Your task to perform on an android device: Open maps Image 0: 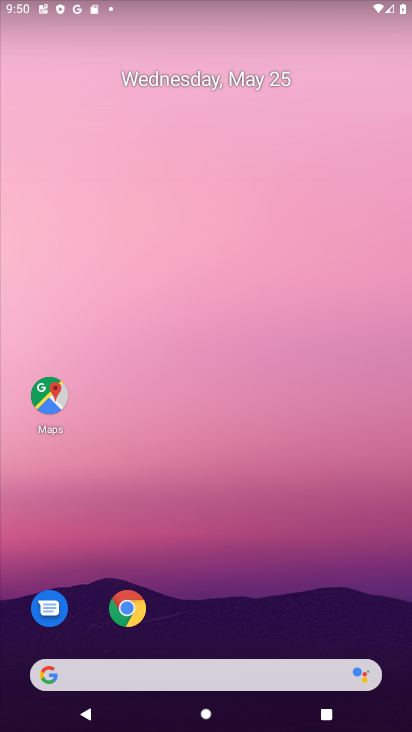
Step 0: click (41, 385)
Your task to perform on an android device: Open maps Image 1: 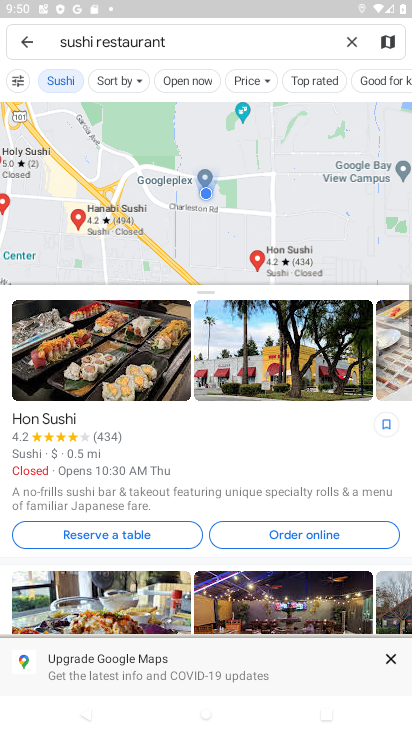
Step 1: task complete